Your task to perform on an android device: Go to settings Image 0: 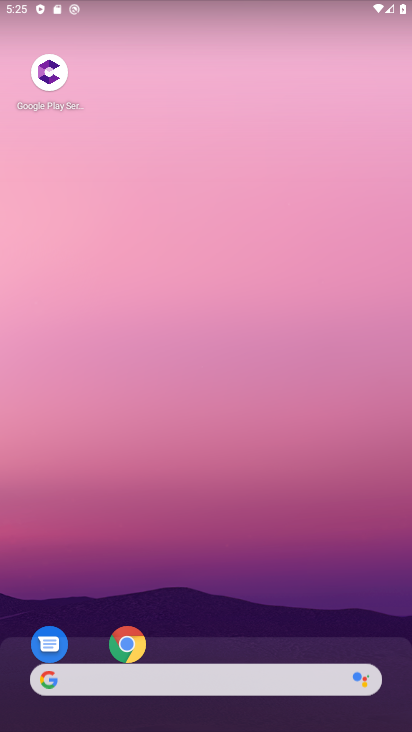
Step 0: drag from (191, 601) to (217, 21)
Your task to perform on an android device: Go to settings Image 1: 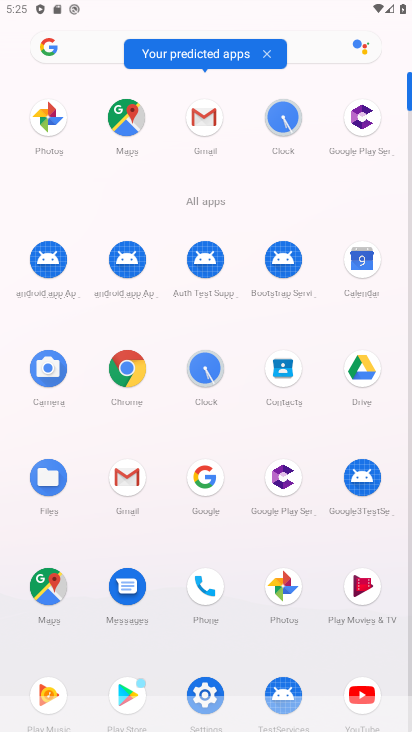
Step 1: drag from (227, 665) to (227, 459)
Your task to perform on an android device: Go to settings Image 2: 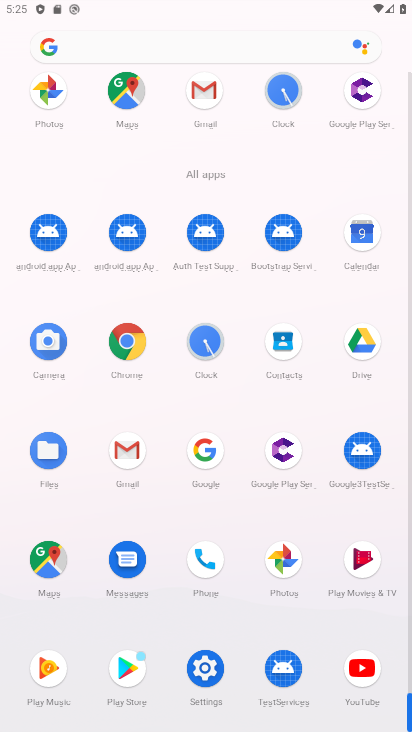
Step 2: click (210, 672)
Your task to perform on an android device: Go to settings Image 3: 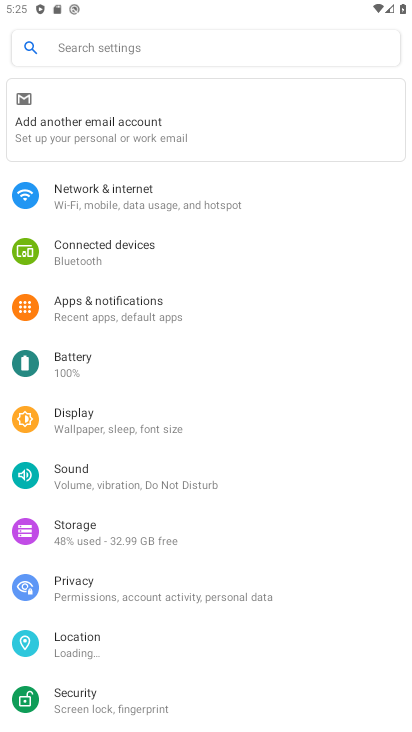
Step 3: task complete